Your task to perform on an android device: toggle data saver in the chrome app Image 0: 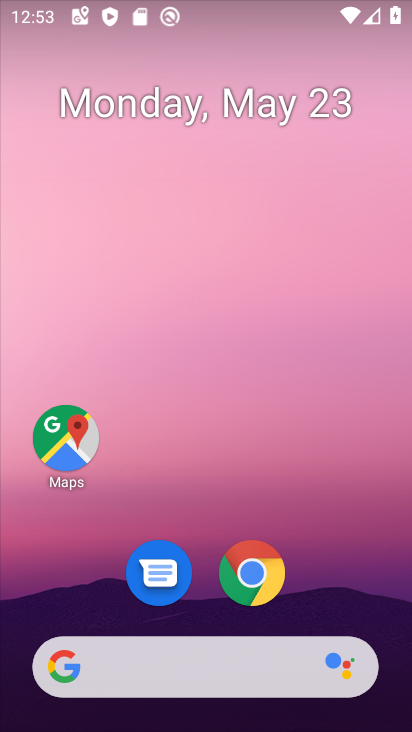
Step 0: drag from (304, 590) to (308, 210)
Your task to perform on an android device: toggle data saver in the chrome app Image 1: 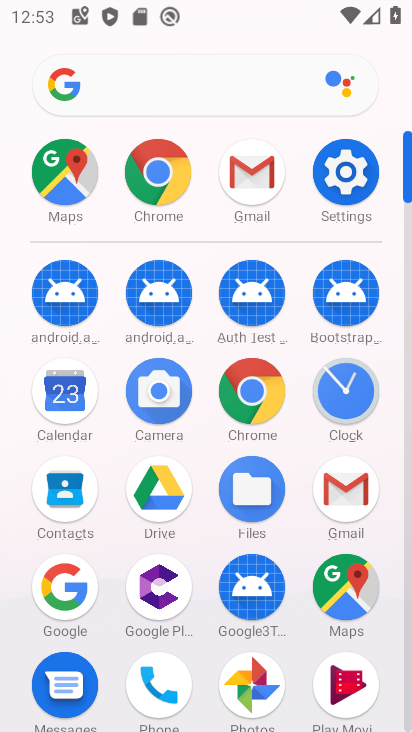
Step 1: click (256, 376)
Your task to perform on an android device: toggle data saver in the chrome app Image 2: 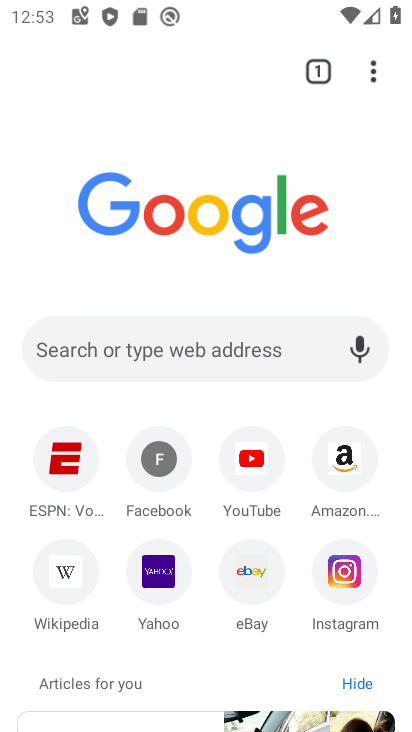
Step 2: drag from (375, 70) to (132, 609)
Your task to perform on an android device: toggle data saver in the chrome app Image 3: 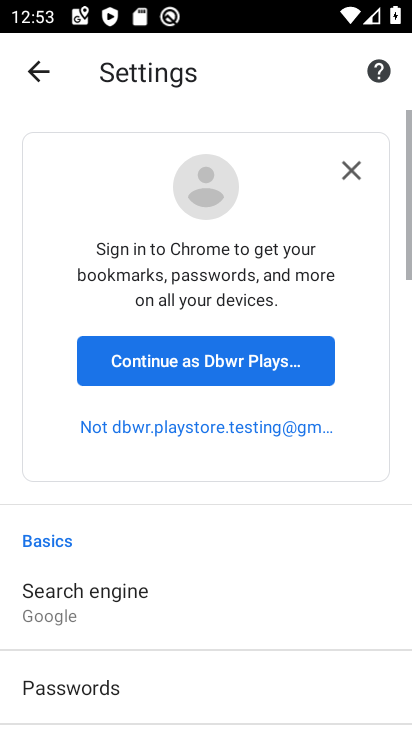
Step 3: drag from (198, 657) to (207, 87)
Your task to perform on an android device: toggle data saver in the chrome app Image 4: 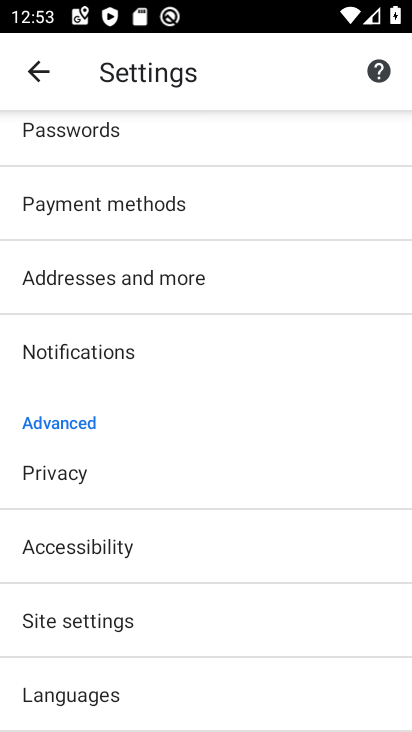
Step 4: drag from (265, 593) to (218, 230)
Your task to perform on an android device: toggle data saver in the chrome app Image 5: 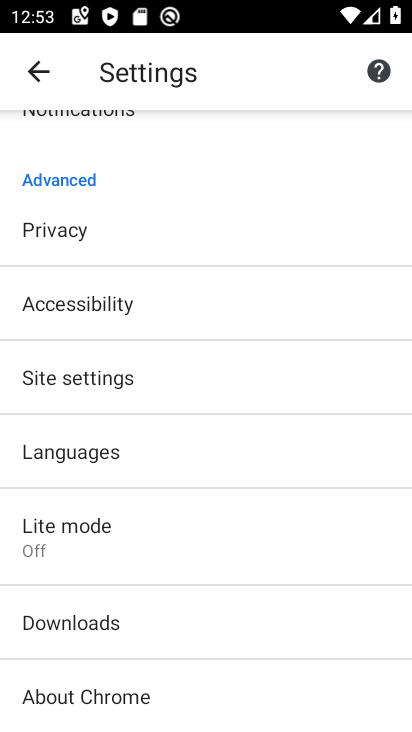
Step 5: click (95, 508)
Your task to perform on an android device: toggle data saver in the chrome app Image 6: 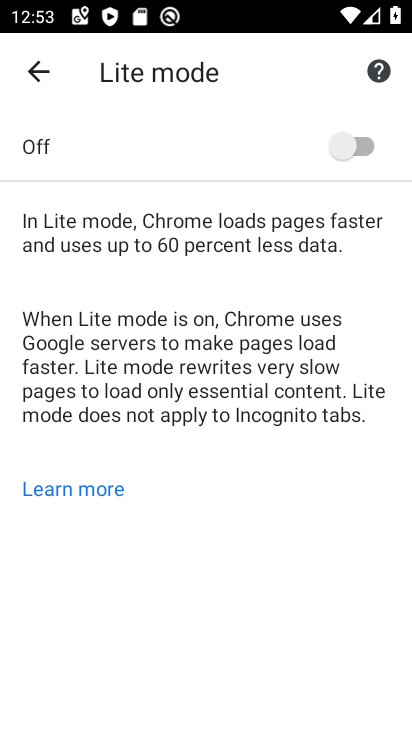
Step 6: click (358, 147)
Your task to perform on an android device: toggle data saver in the chrome app Image 7: 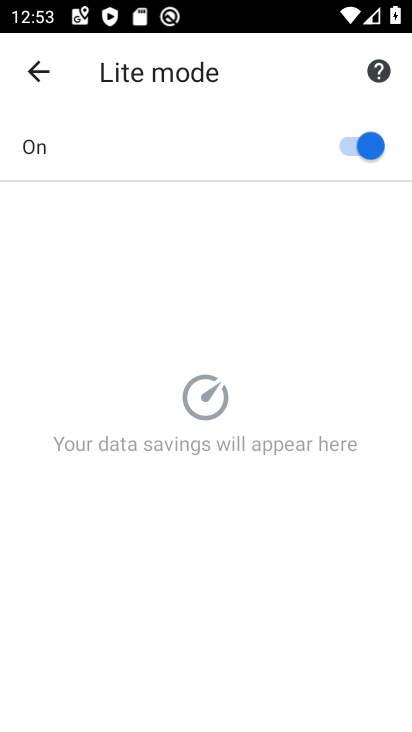
Step 7: task complete